Your task to perform on an android device: Do I have any events today? Image 0: 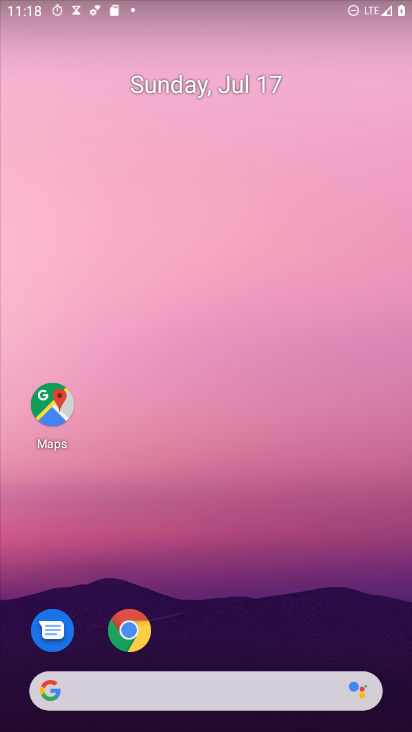
Step 0: drag from (150, 689) to (155, 142)
Your task to perform on an android device: Do I have any events today? Image 1: 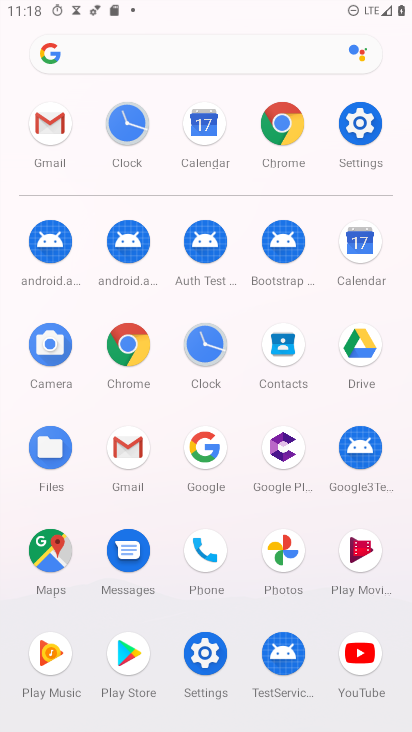
Step 1: click (368, 242)
Your task to perform on an android device: Do I have any events today? Image 2: 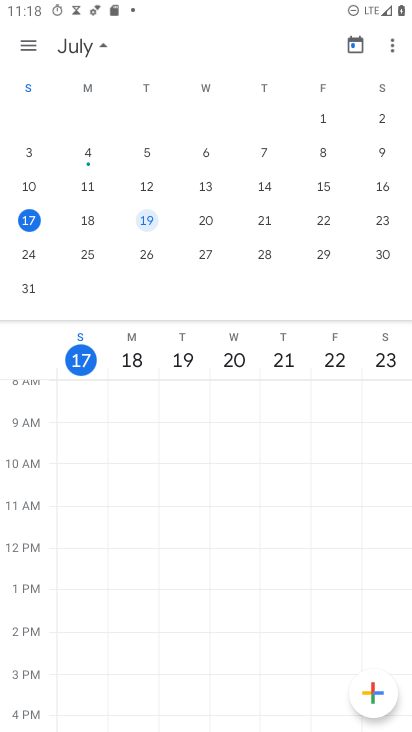
Step 2: click (91, 221)
Your task to perform on an android device: Do I have any events today? Image 3: 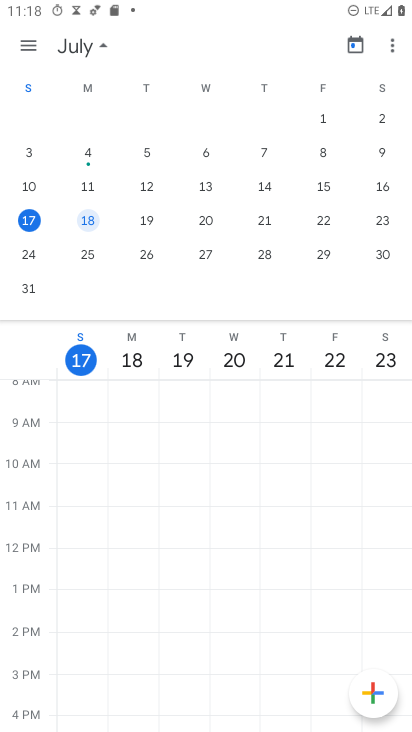
Step 3: task complete